Your task to perform on an android device: How much does a 2 bedroom apartment rent for in Houston? Image 0: 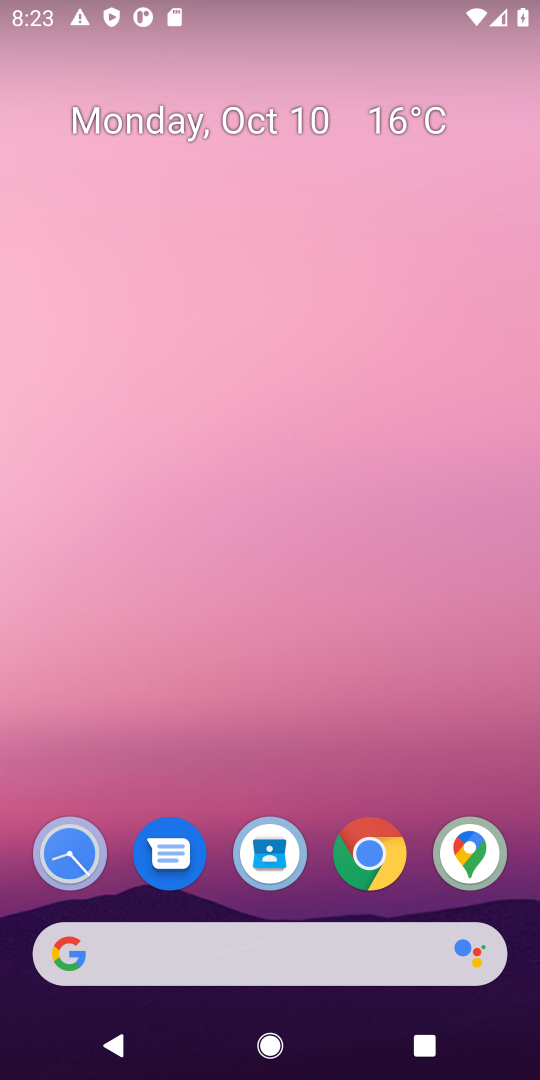
Step 0: drag from (319, 898) to (353, 111)
Your task to perform on an android device: How much does a 2 bedroom apartment rent for in Houston? Image 1: 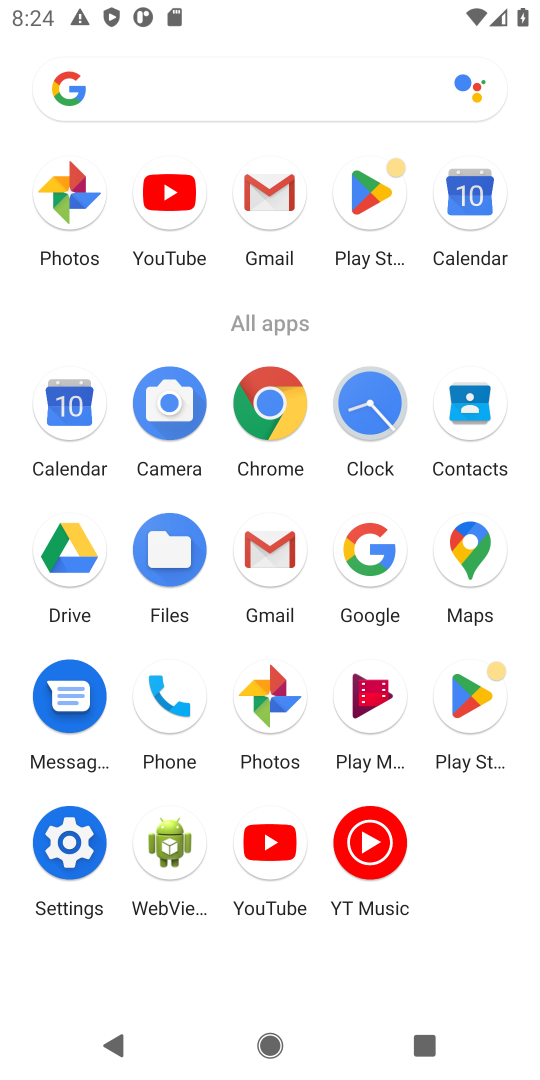
Step 1: click (266, 403)
Your task to perform on an android device: How much does a 2 bedroom apartment rent for in Houston? Image 2: 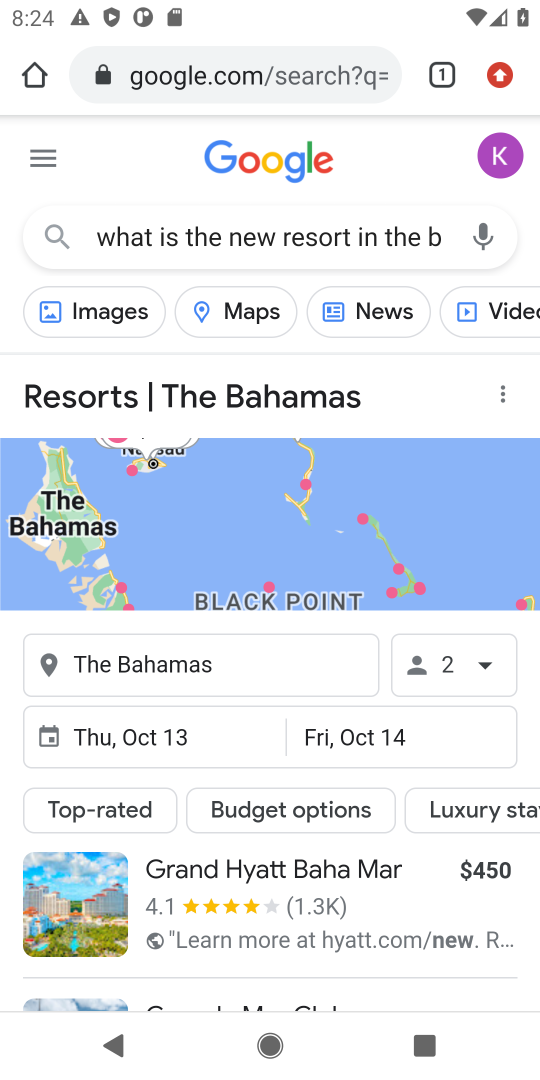
Step 2: click (314, 228)
Your task to perform on an android device: How much does a 2 bedroom apartment rent for in Houston? Image 3: 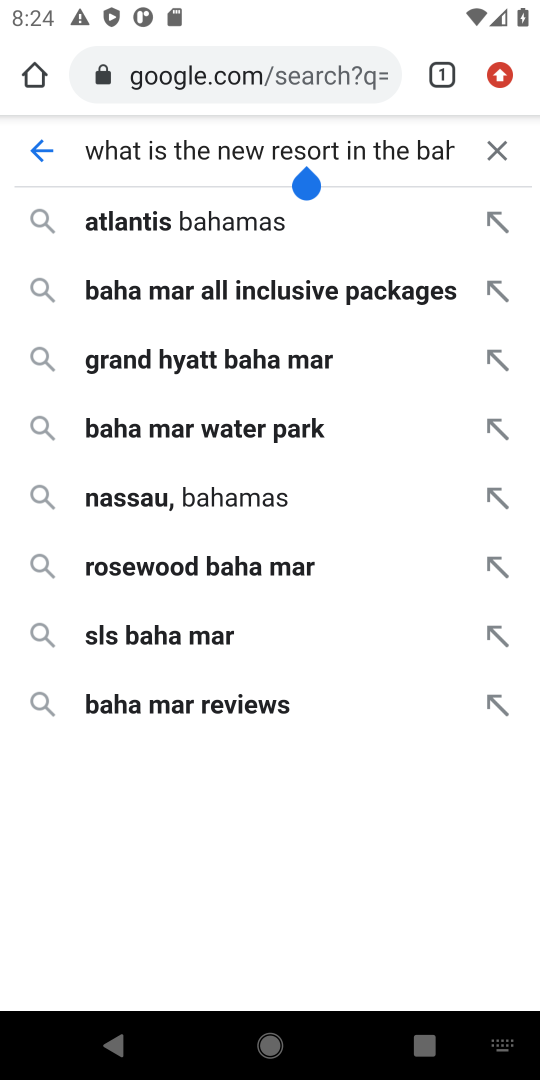
Step 3: click (498, 139)
Your task to perform on an android device: How much does a 2 bedroom apartment rent for in Houston? Image 4: 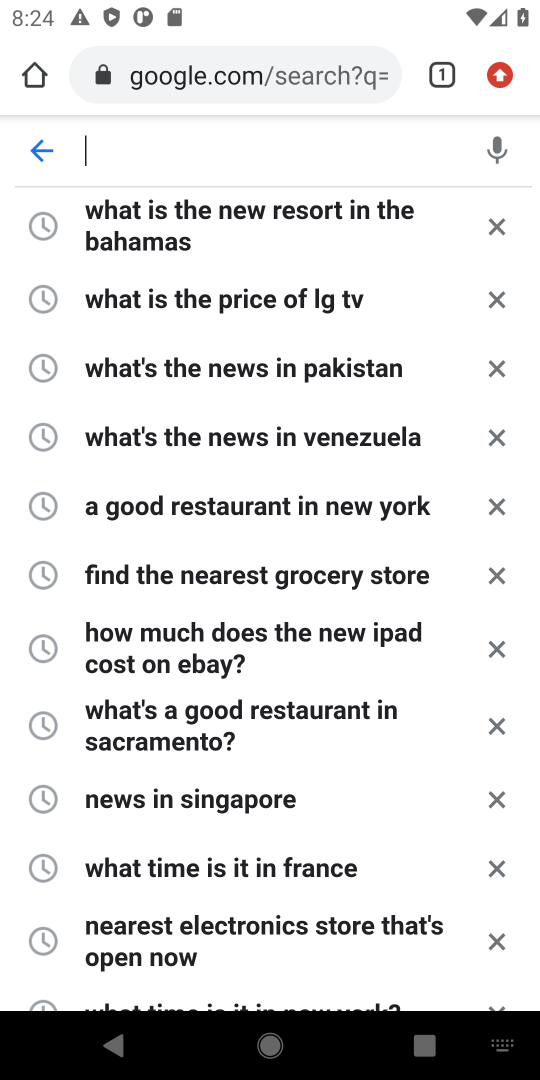
Step 4: type "How much does a 2 bedroom apartment rent for in Houston?"
Your task to perform on an android device: How much does a 2 bedroom apartment rent for in Houston? Image 5: 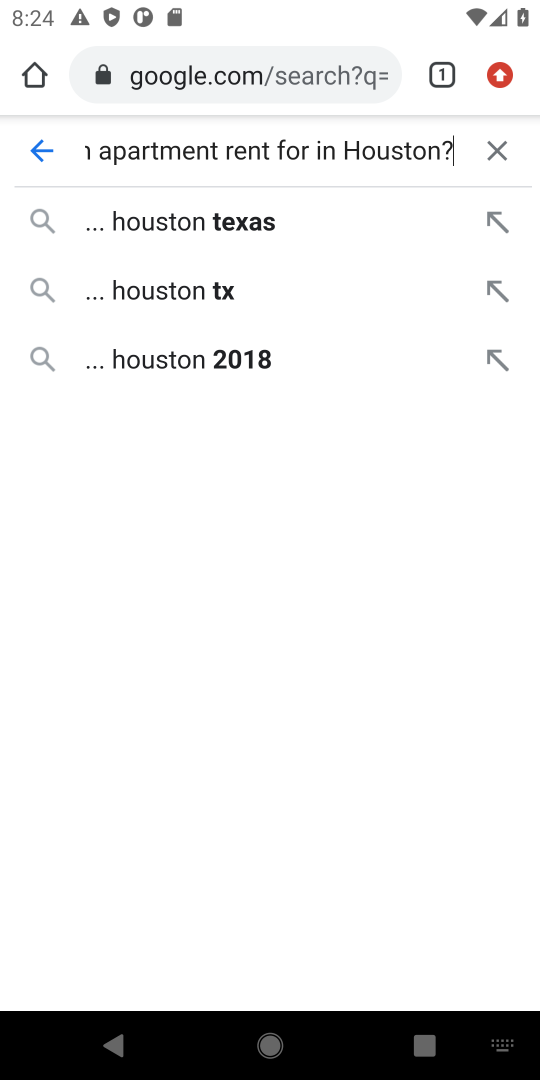
Step 5: click (219, 349)
Your task to perform on an android device: How much does a 2 bedroom apartment rent for in Houston? Image 6: 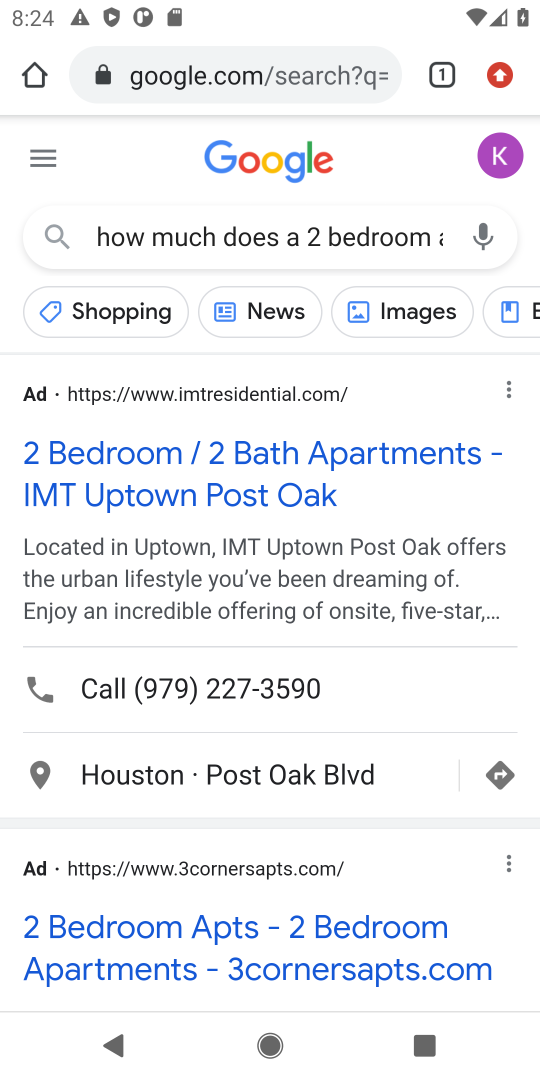
Step 6: click (315, 452)
Your task to perform on an android device: How much does a 2 bedroom apartment rent for in Houston? Image 7: 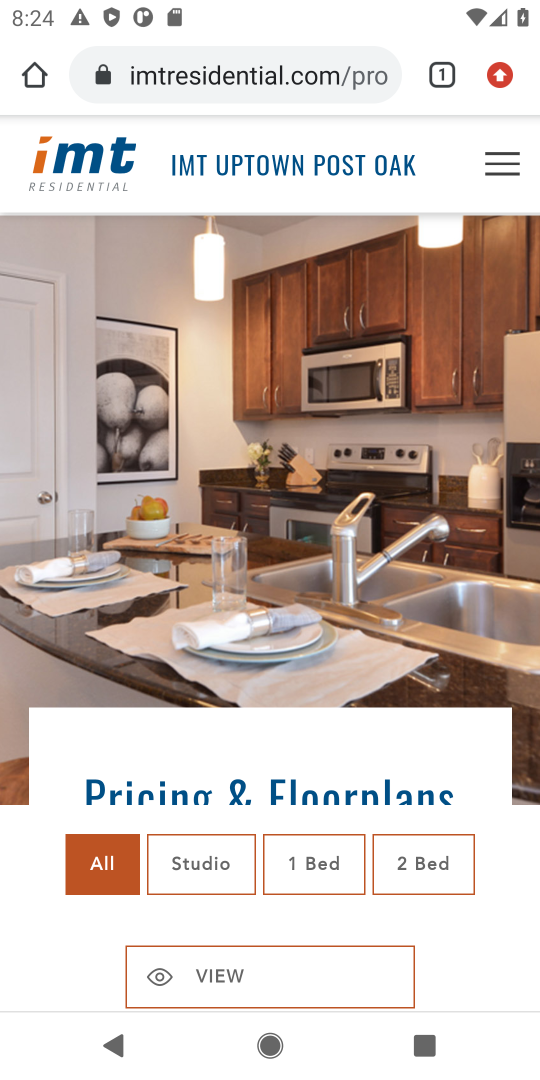
Step 7: task complete